Your task to perform on an android device: Show me popular games on the Play Store Image 0: 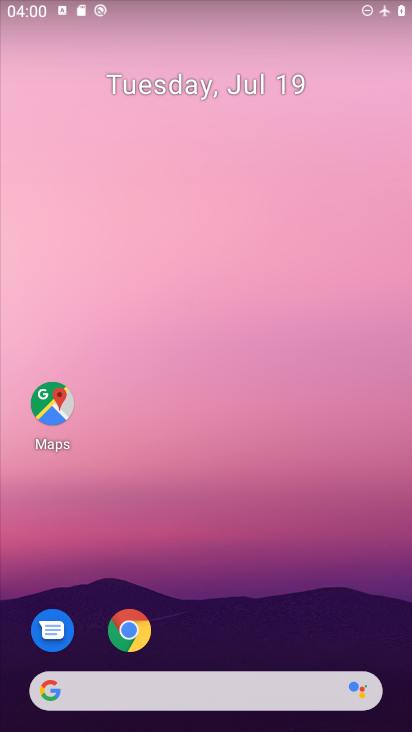
Step 0: drag from (375, 631) to (314, 5)
Your task to perform on an android device: Show me popular games on the Play Store Image 1: 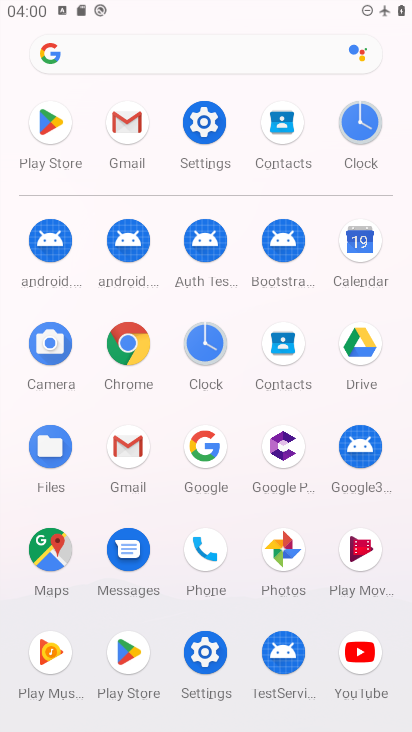
Step 1: click (130, 649)
Your task to perform on an android device: Show me popular games on the Play Store Image 2: 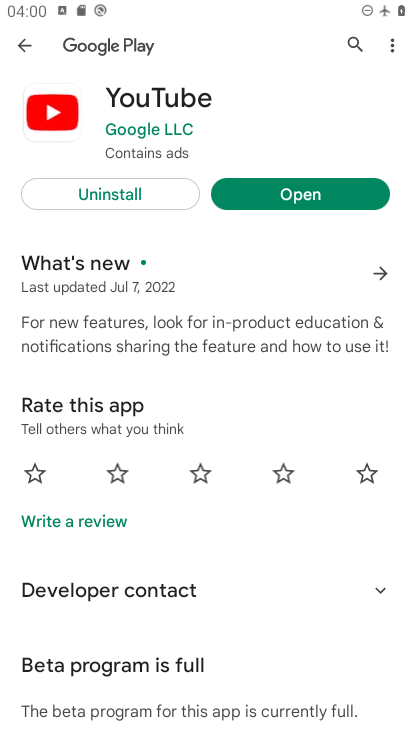
Step 2: press back button
Your task to perform on an android device: Show me popular games on the Play Store Image 3: 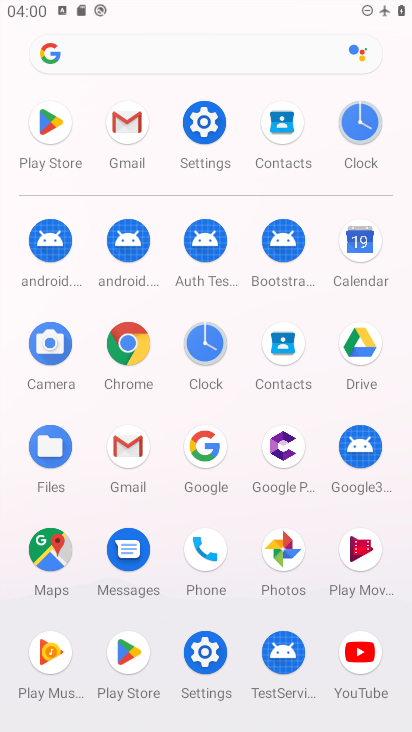
Step 3: click (126, 647)
Your task to perform on an android device: Show me popular games on the Play Store Image 4: 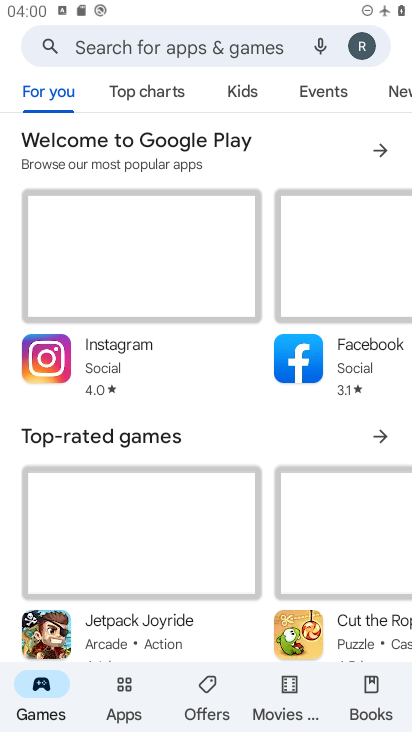
Step 4: drag from (217, 606) to (172, 260)
Your task to perform on an android device: Show me popular games on the Play Store Image 5: 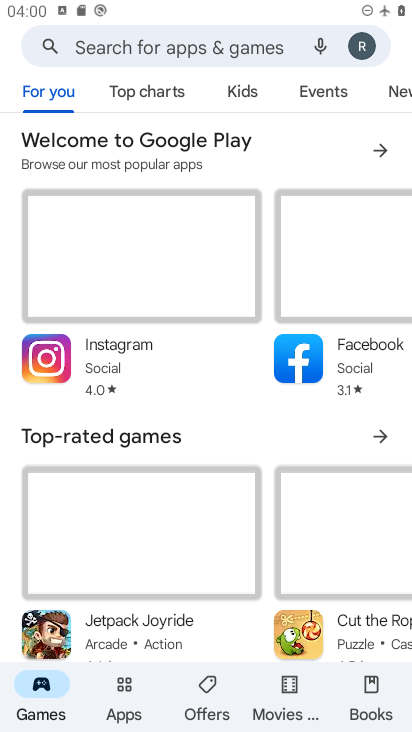
Step 5: drag from (210, 445) to (215, 162)
Your task to perform on an android device: Show me popular games on the Play Store Image 6: 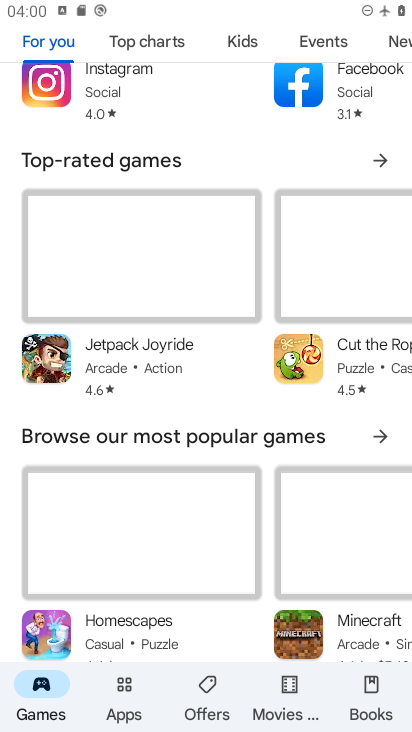
Step 6: click (381, 434)
Your task to perform on an android device: Show me popular games on the Play Store Image 7: 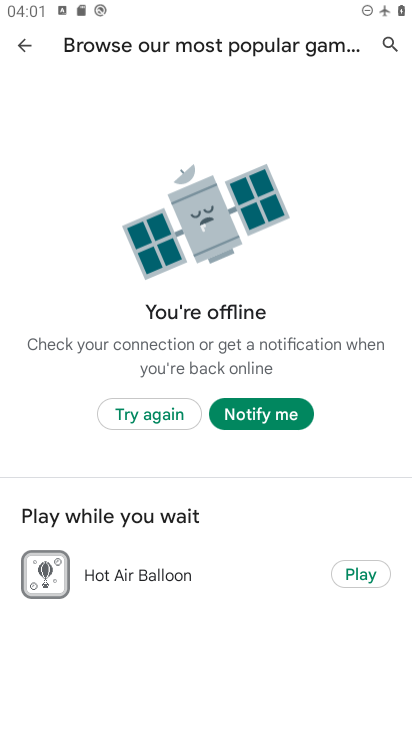
Step 7: click (142, 412)
Your task to perform on an android device: Show me popular games on the Play Store Image 8: 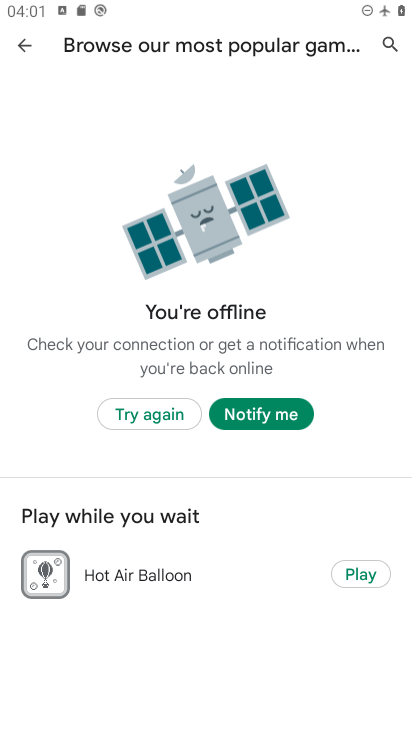
Step 8: task complete